Your task to perform on an android device: Go to accessibility settings Image 0: 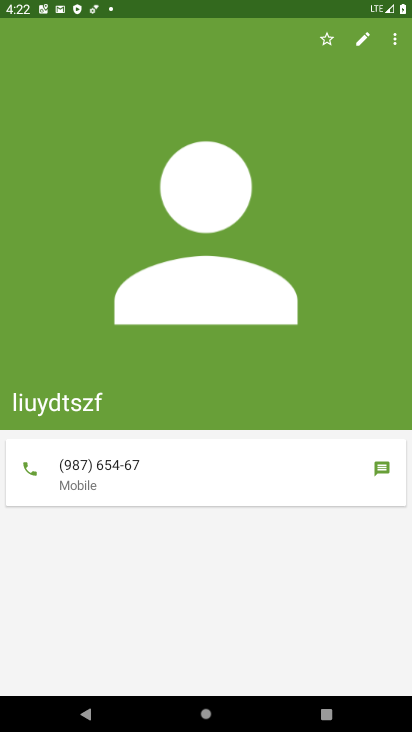
Step 0: press home button
Your task to perform on an android device: Go to accessibility settings Image 1: 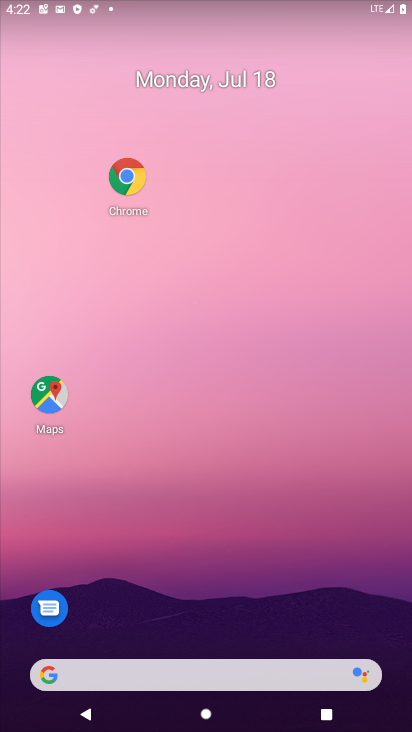
Step 1: drag from (211, 619) to (276, 150)
Your task to perform on an android device: Go to accessibility settings Image 2: 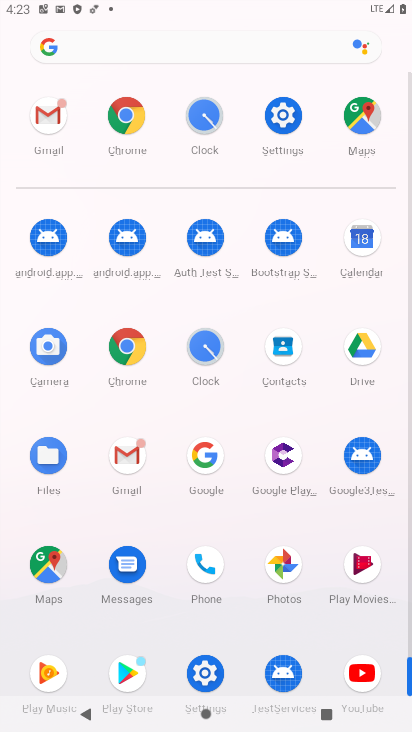
Step 2: click (286, 123)
Your task to perform on an android device: Go to accessibility settings Image 3: 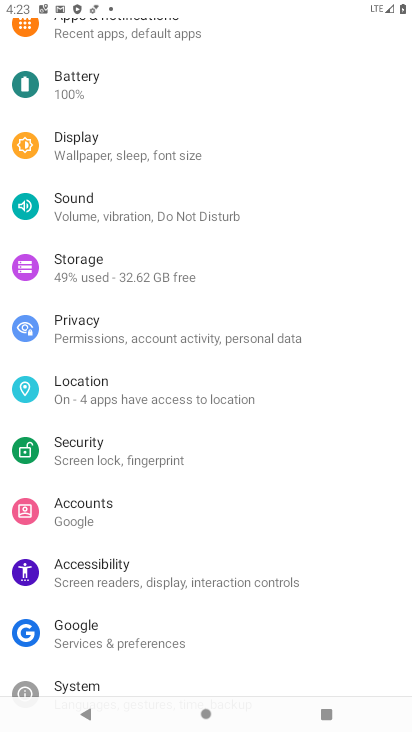
Step 3: click (135, 581)
Your task to perform on an android device: Go to accessibility settings Image 4: 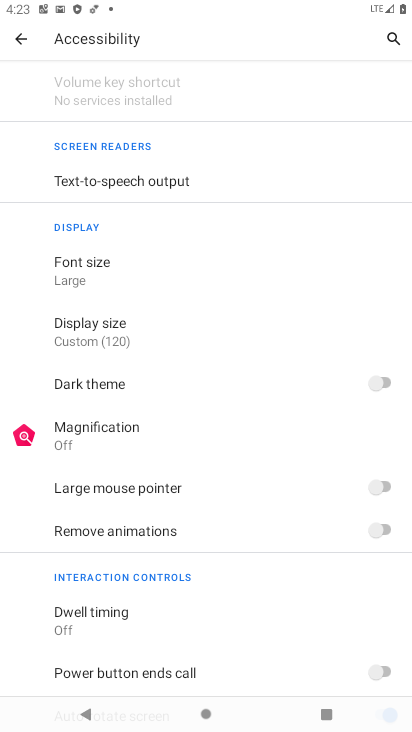
Step 4: task complete